Your task to perform on an android device: Clear the cart on ebay.com. Add "razer thresher" to the cart on ebay.com Image 0: 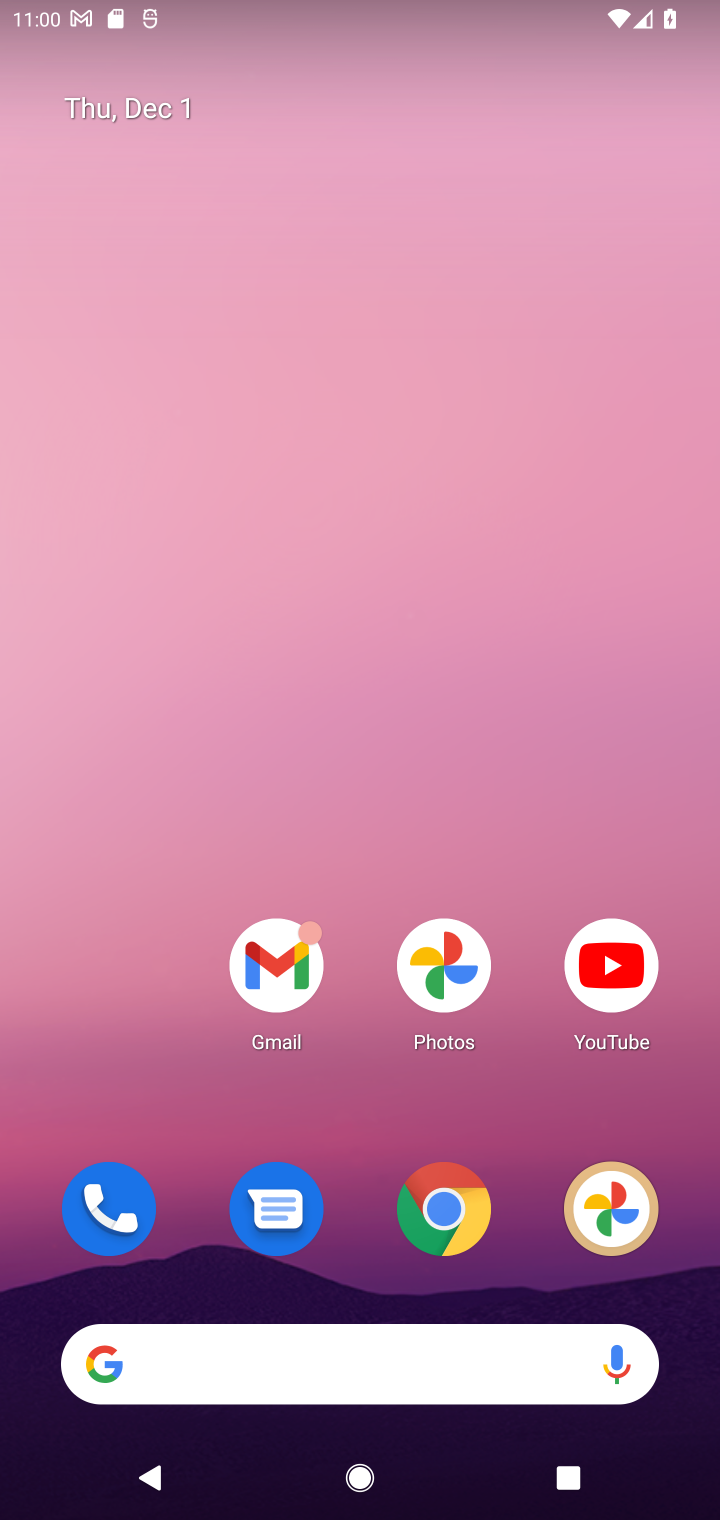
Step 0: click (452, 1204)
Your task to perform on an android device: Clear the cart on ebay.com. Add "razer thresher" to the cart on ebay.com Image 1: 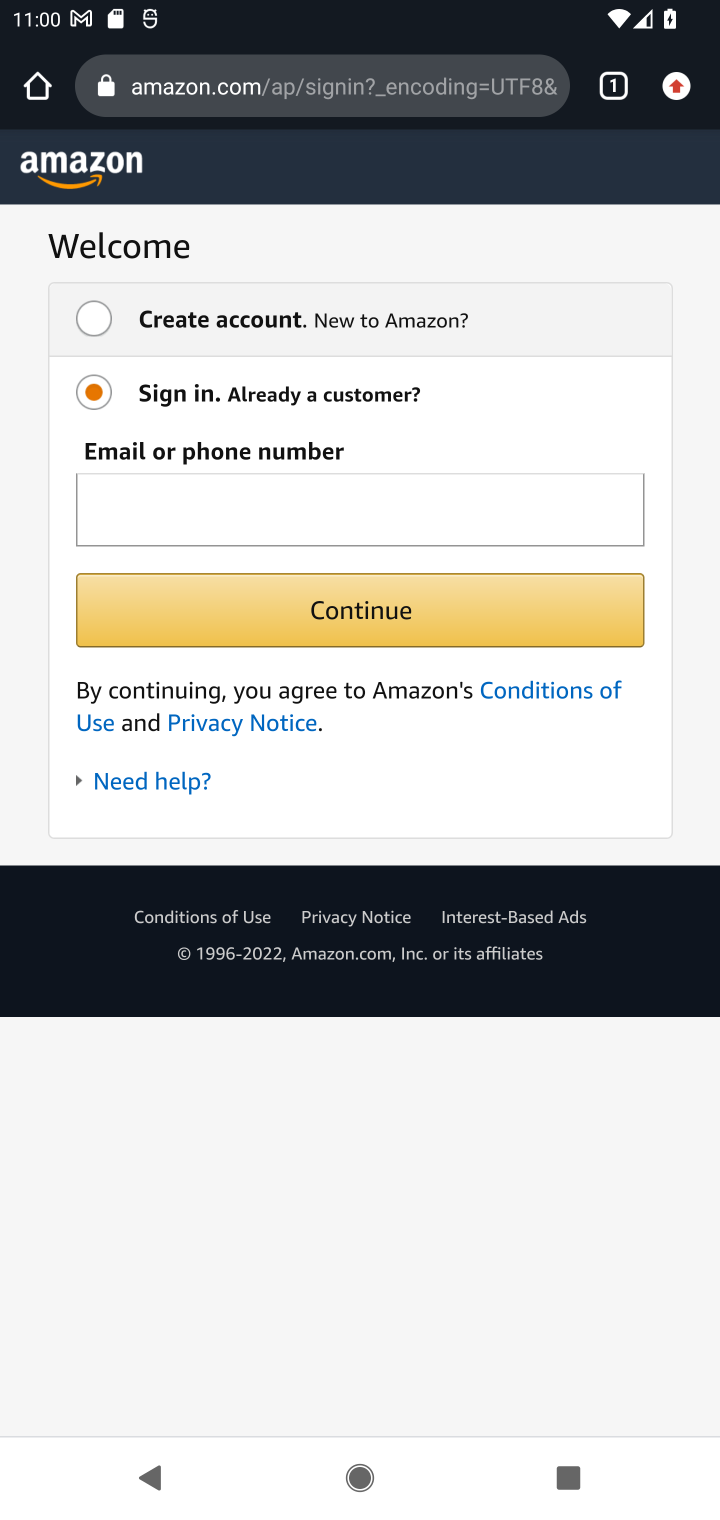
Step 1: click (314, 80)
Your task to perform on an android device: Clear the cart on ebay.com. Add "razer thresher" to the cart on ebay.com Image 2: 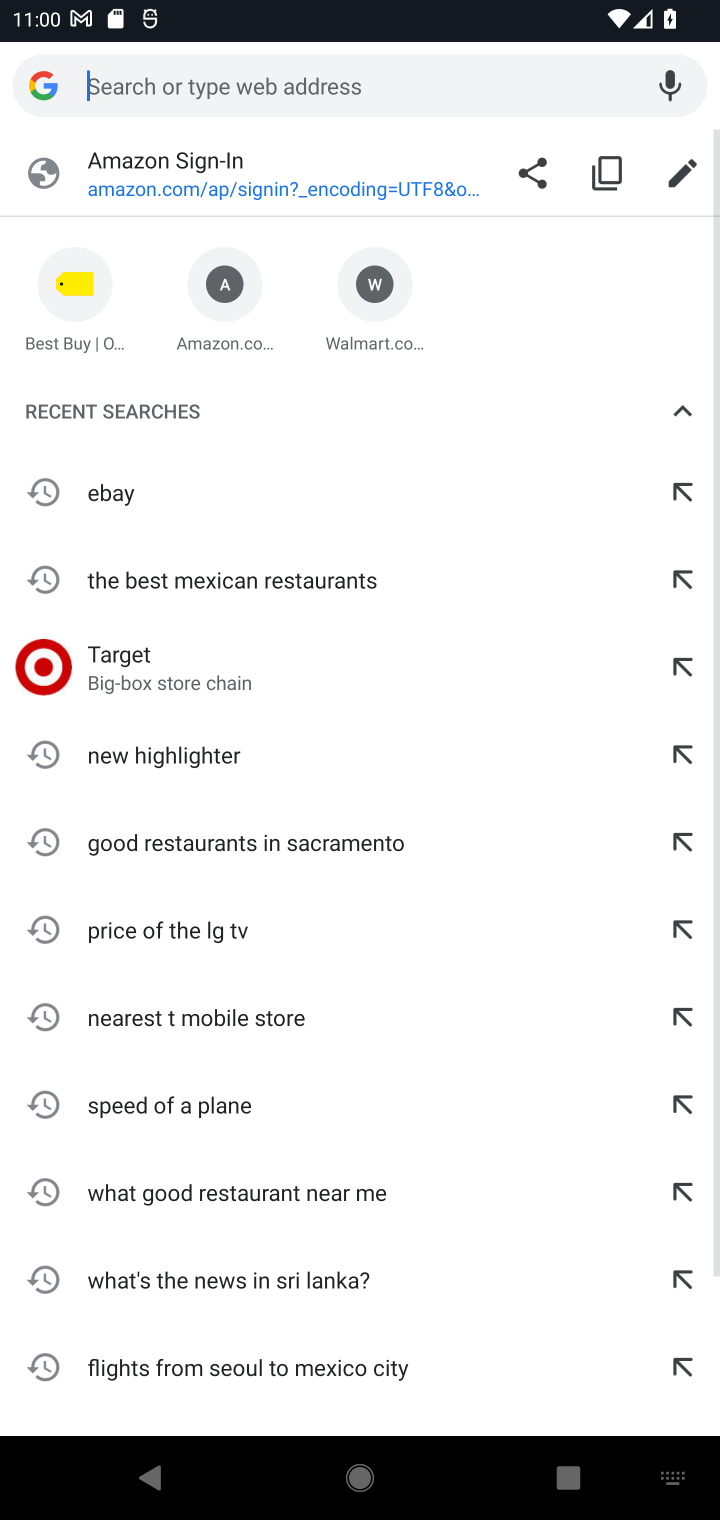
Step 2: click (125, 491)
Your task to perform on an android device: Clear the cart on ebay.com. Add "razer thresher" to the cart on ebay.com Image 3: 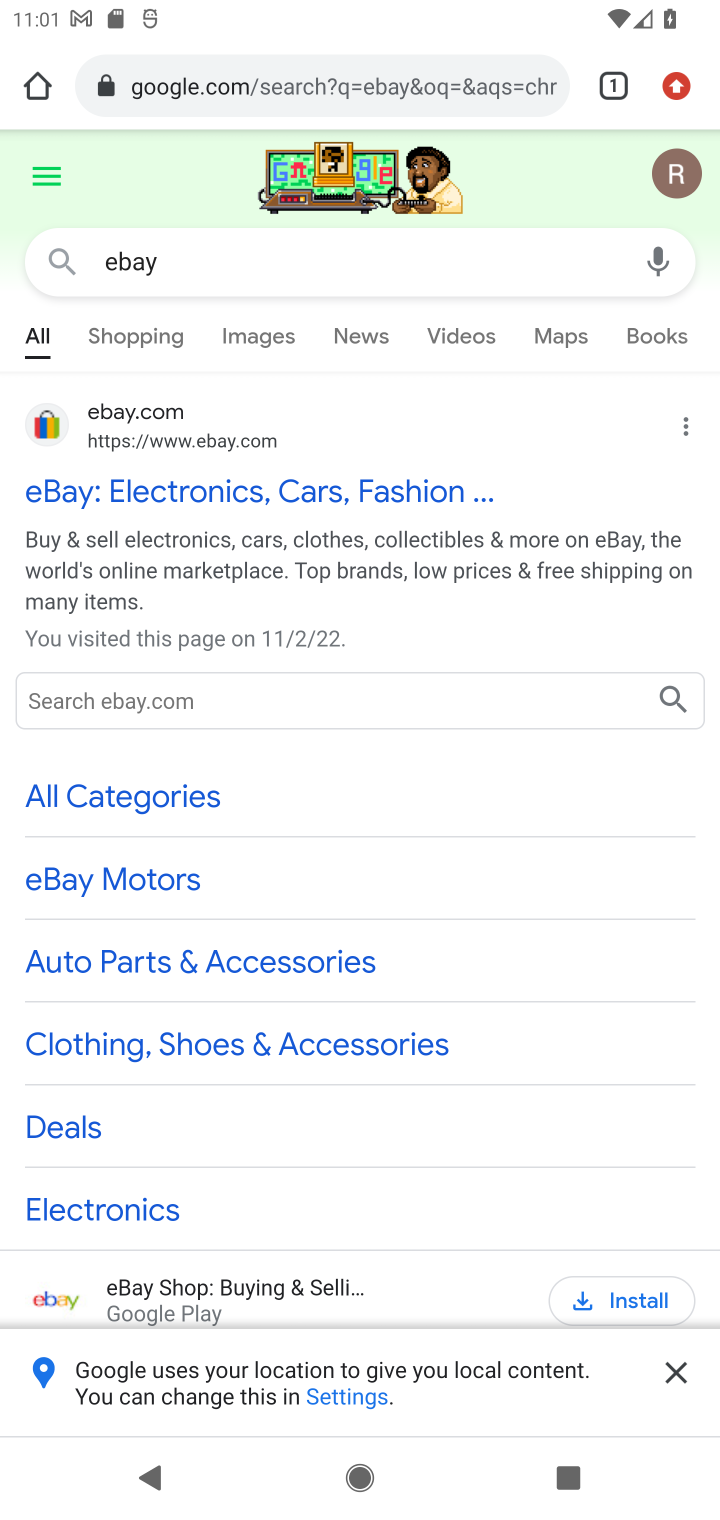
Step 3: click (130, 500)
Your task to perform on an android device: Clear the cart on ebay.com. Add "razer thresher" to the cart on ebay.com Image 4: 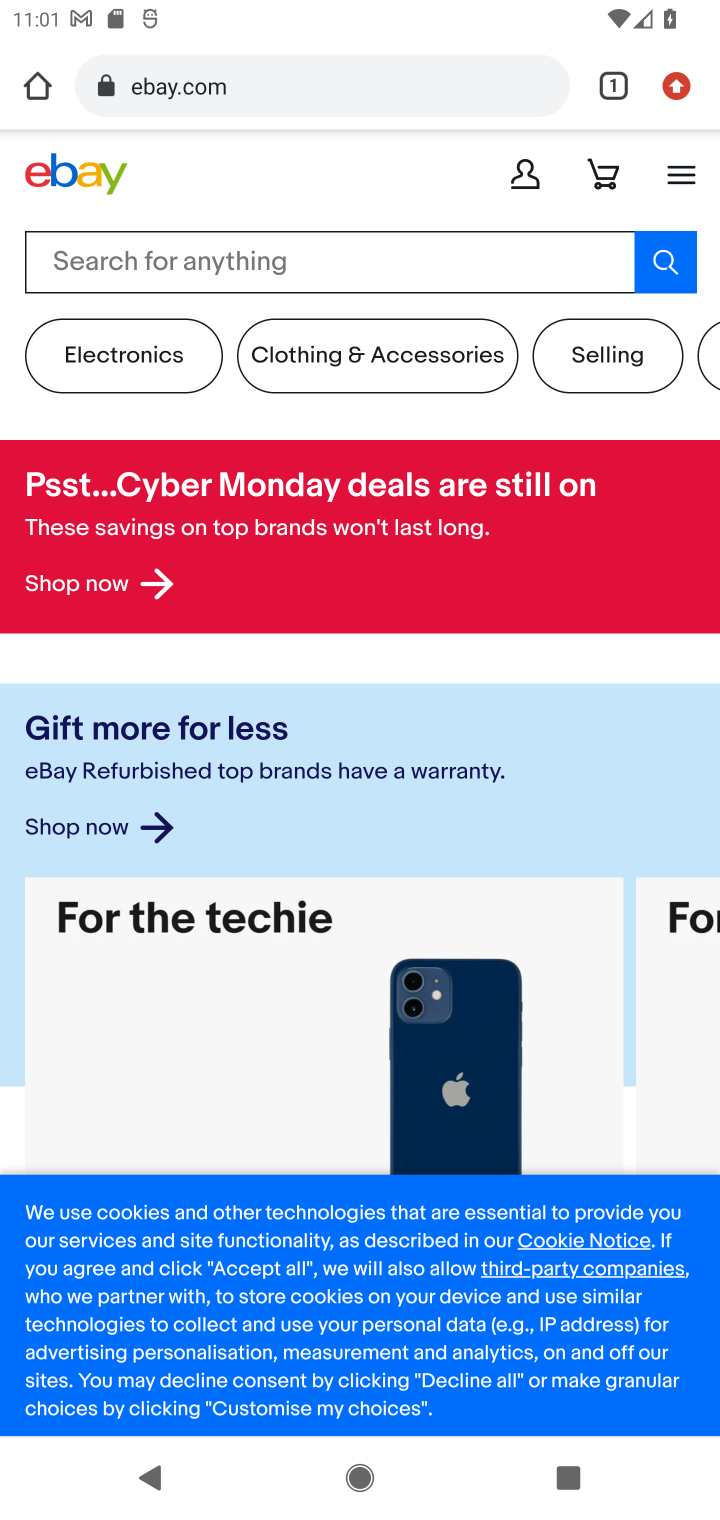
Step 4: click (313, 256)
Your task to perform on an android device: Clear the cart on ebay.com. Add "razer thresher" to the cart on ebay.com Image 5: 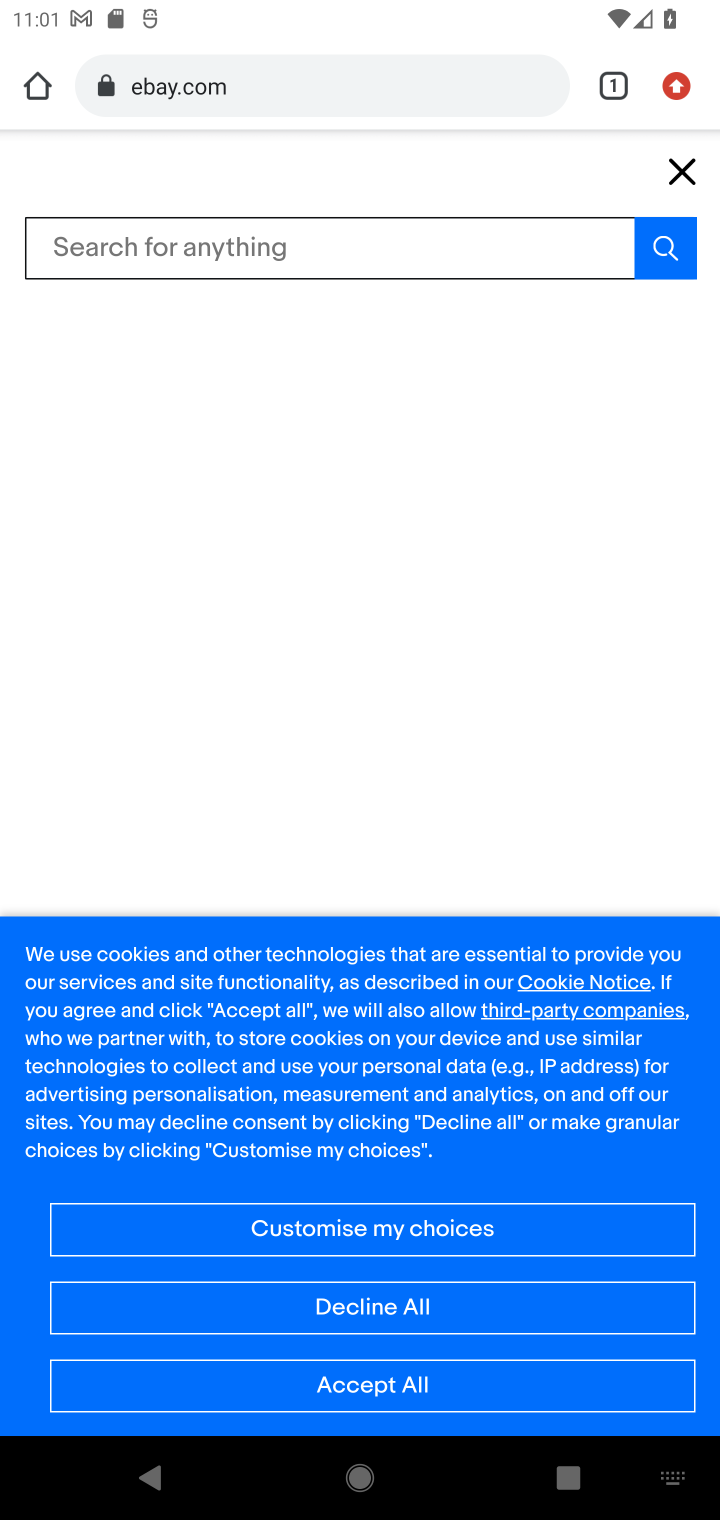
Step 5: click (405, 1379)
Your task to perform on an android device: Clear the cart on ebay.com. Add "razer thresher" to the cart on ebay.com Image 6: 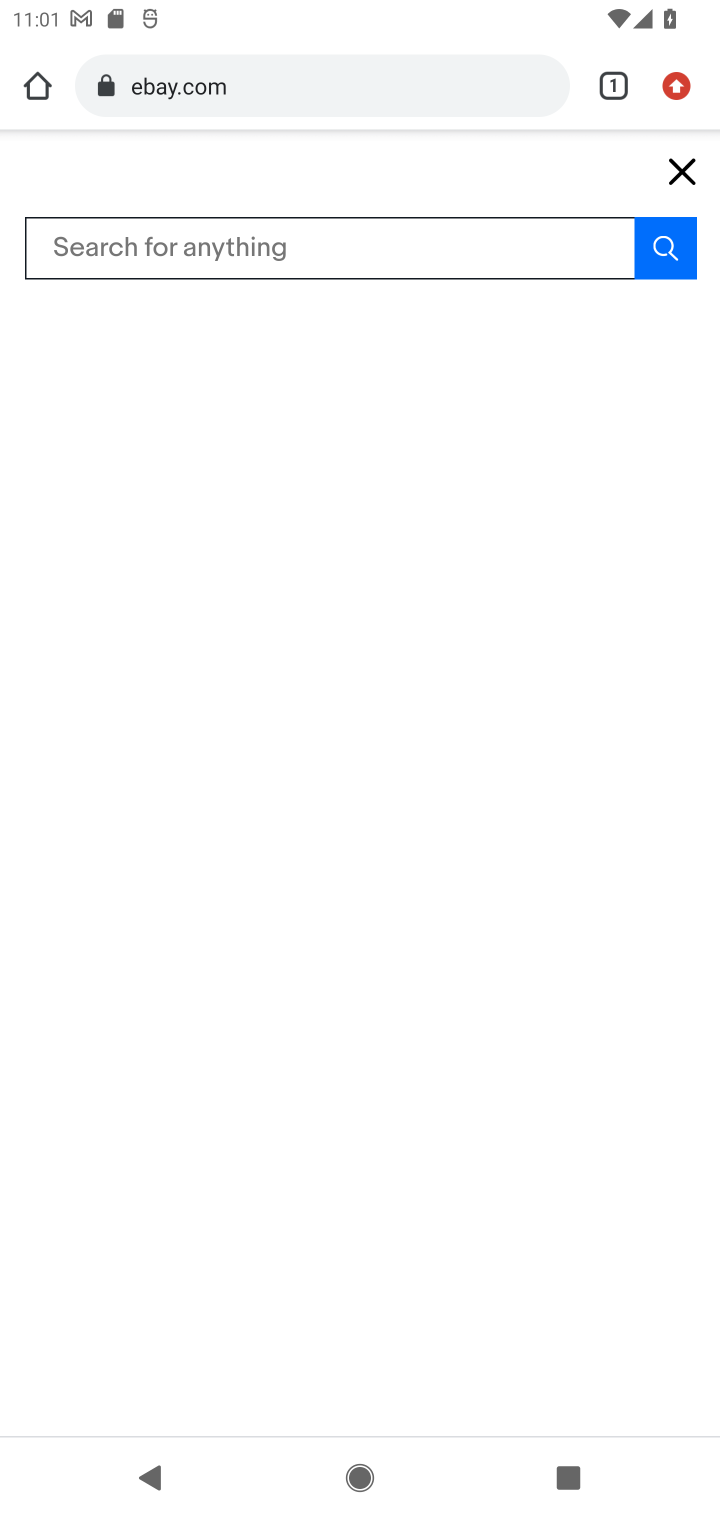
Step 6: click (317, 243)
Your task to perform on an android device: Clear the cart on ebay.com. Add "razer thresher" to the cart on ebay.com Image 7: 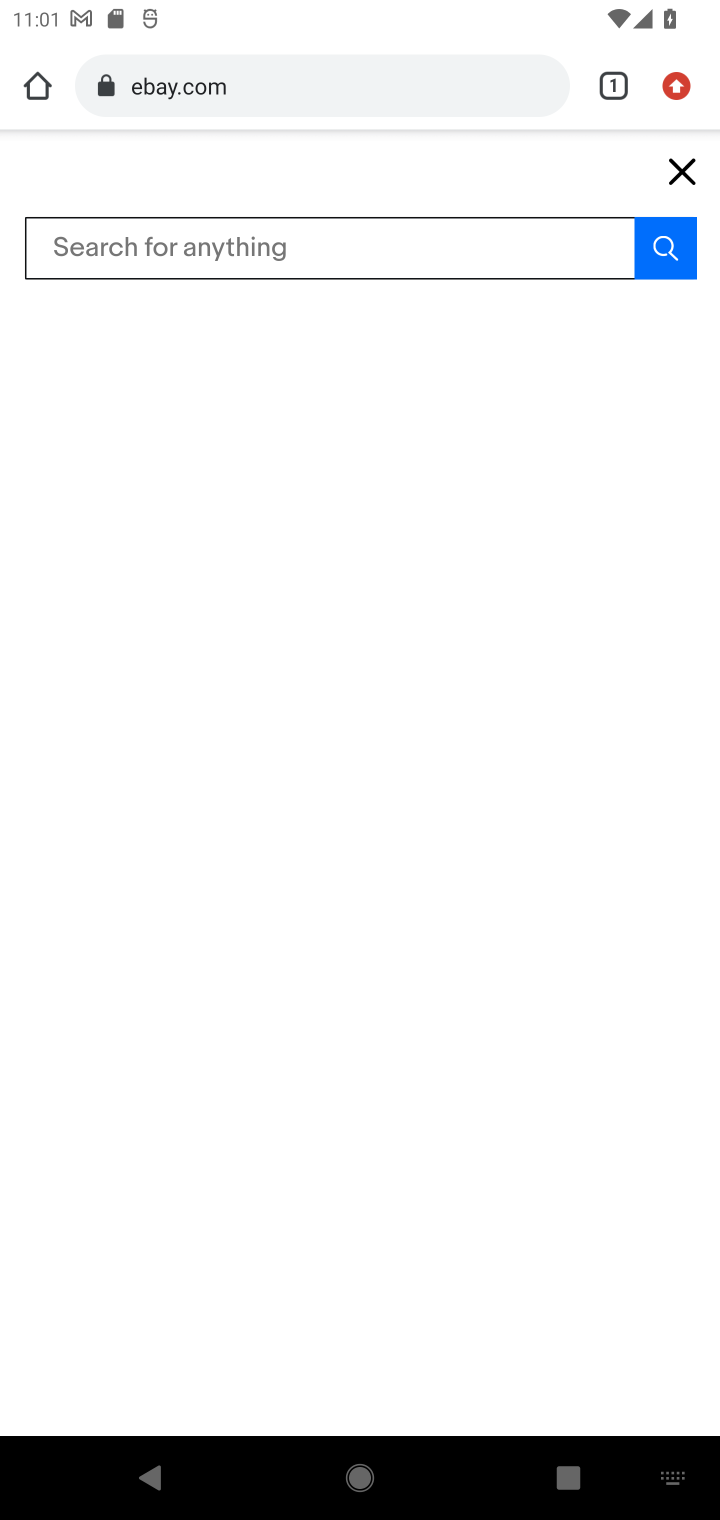
Step 7: click (272, 251)
Your task to perform on an android device: Clear the cart on ebay.com. Add "razer thresher" to the cart on ebay.com Image 8: 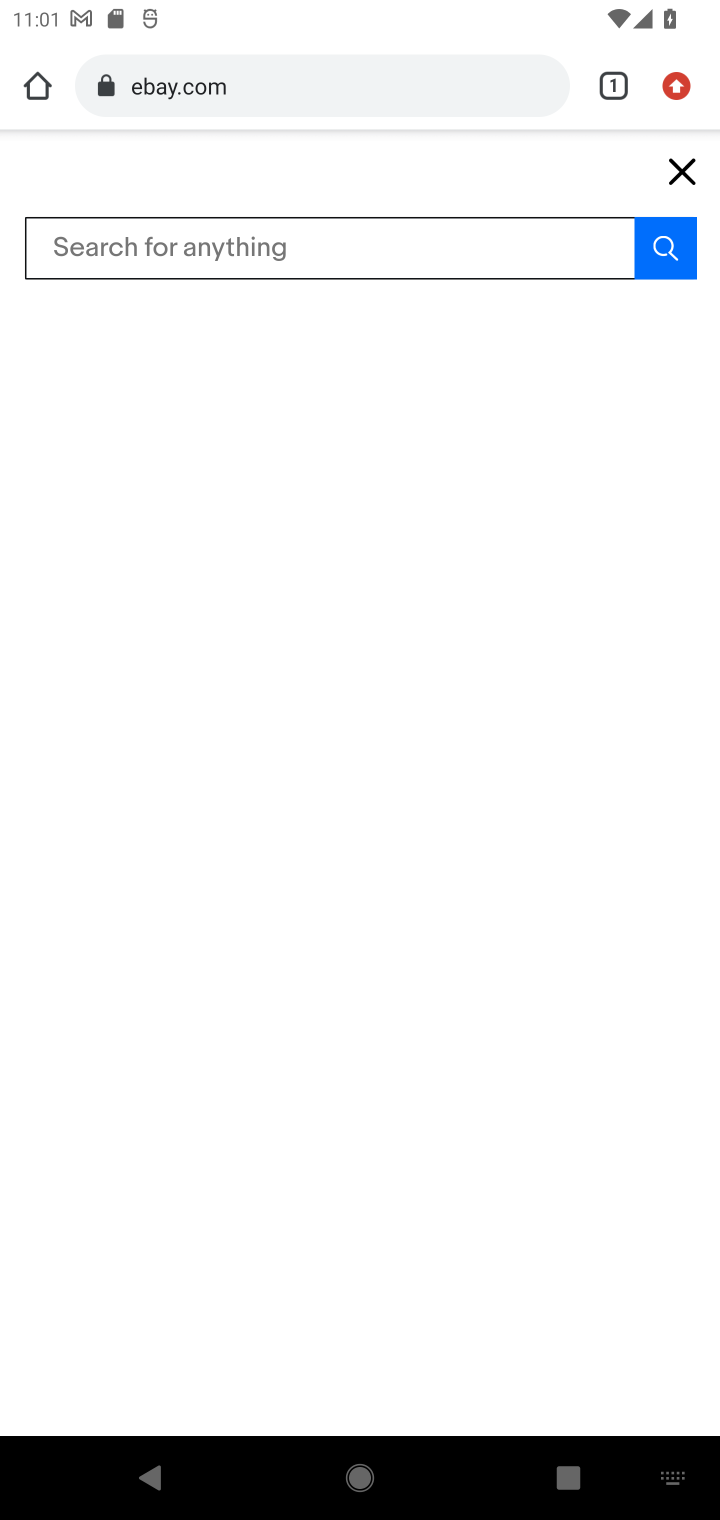
Step 8: type "razer thresher"
Your task to perform on an android device: Clear the cart on ebay.com. Add "razer thresher" to the cart on ebay.com Image 9: 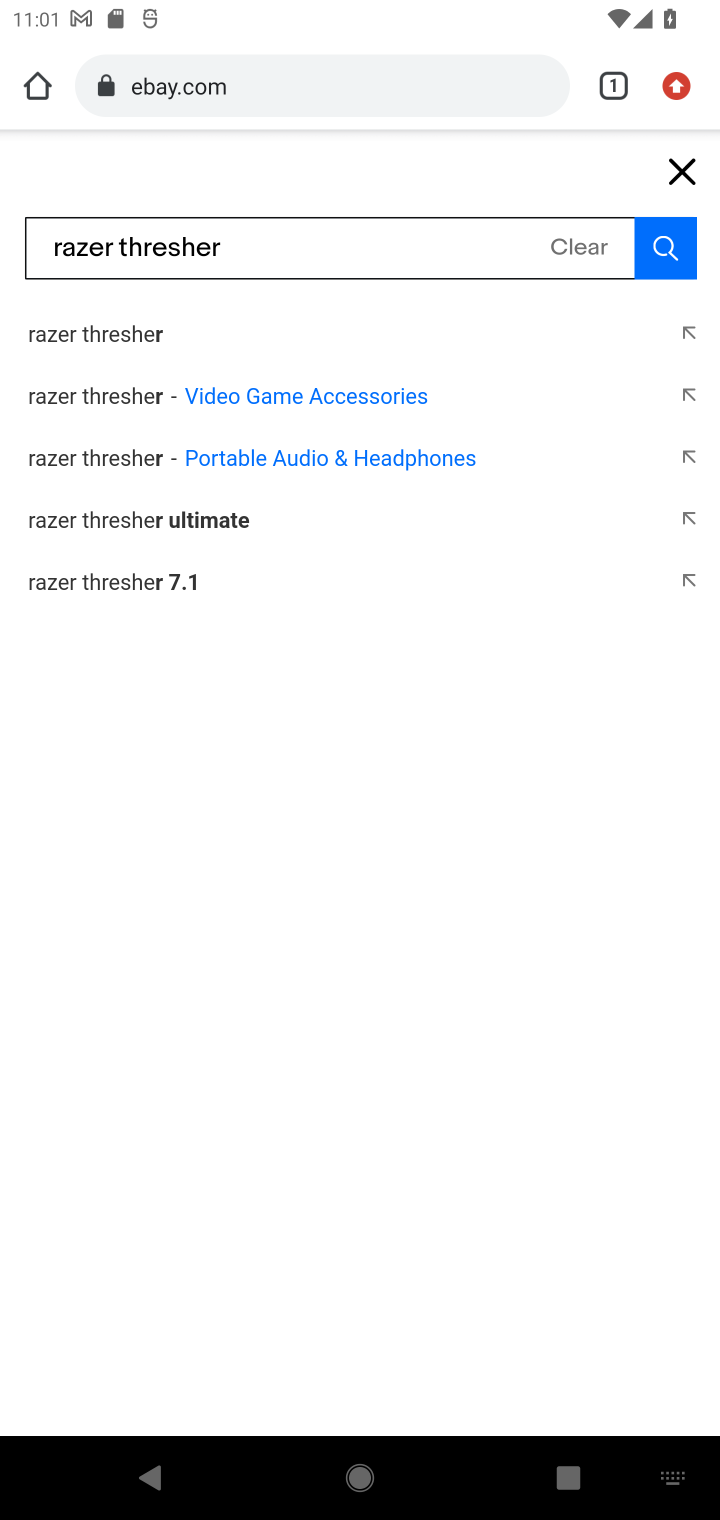
Step 9: click (93, 337)
Your task to perform on an android device: Clear the cart on ebay.com. Add "razer thresher" to the cart on ebay.com Image 10: 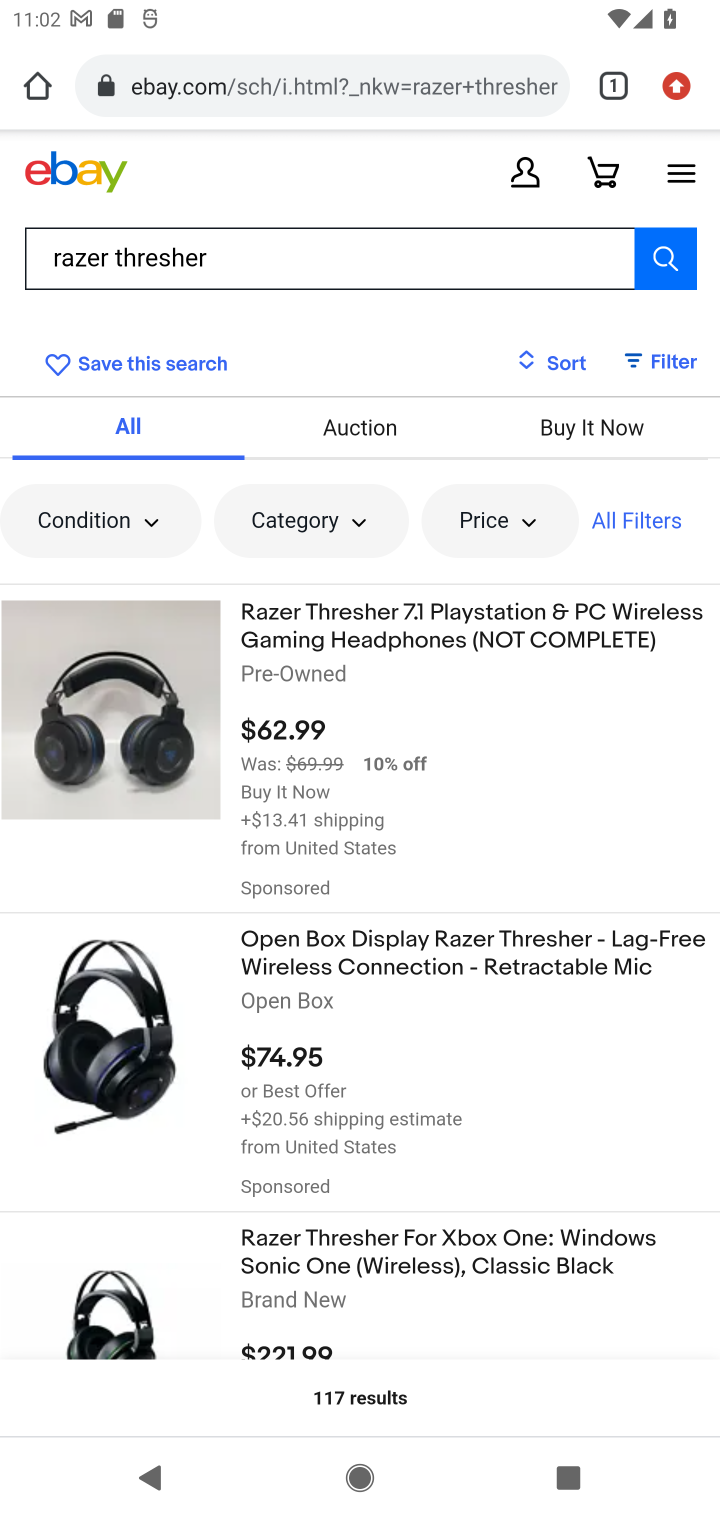
Step 10: click (395, 683)
Your task to perform on an android device: Clear the cart on ebay.com. Add "razer thresher" to the cart on ebay.com Image 11: 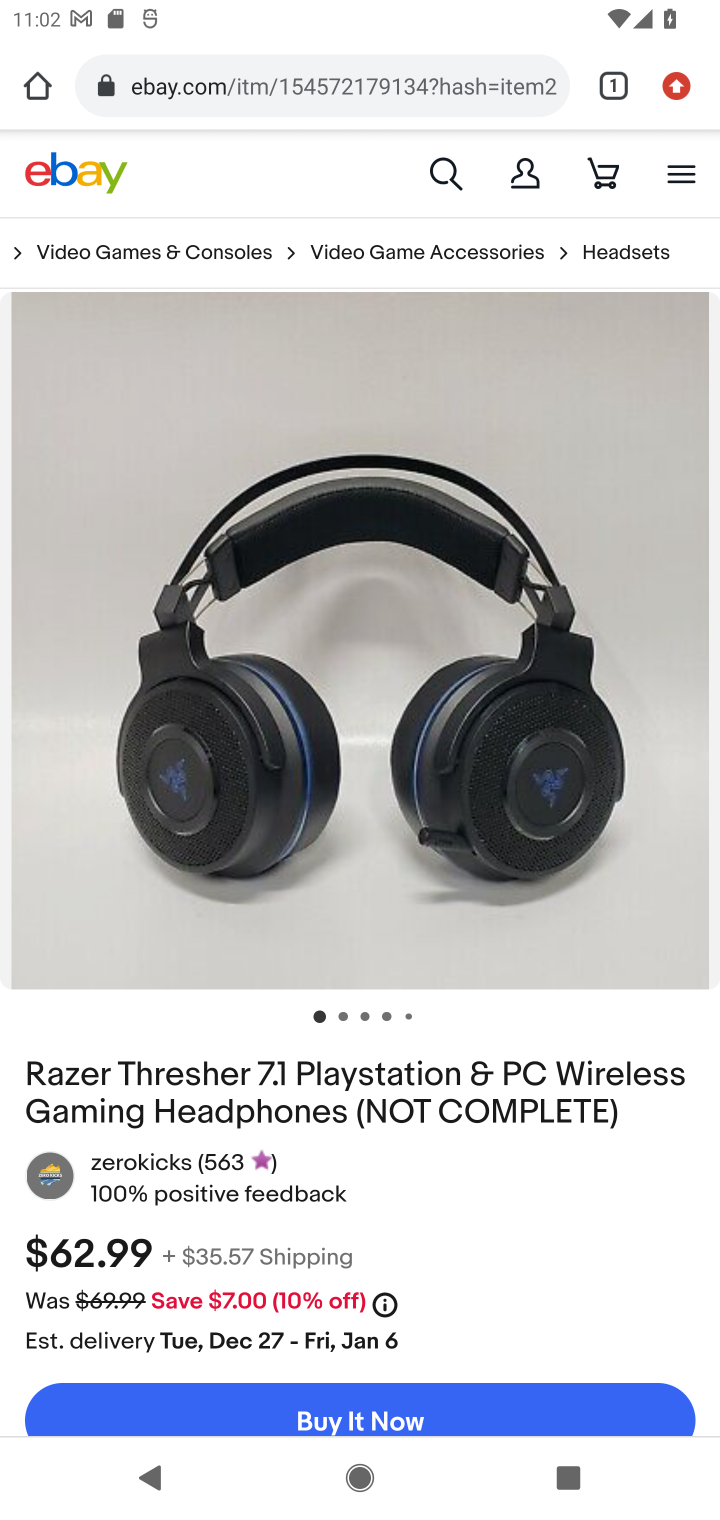
Step 11: drag from (484, 1277) to (436, 607)
Your task to perform on an android device: Clear the cart on ebay.com. Add "razer thresher" to the cart on ebay.com Image 12: 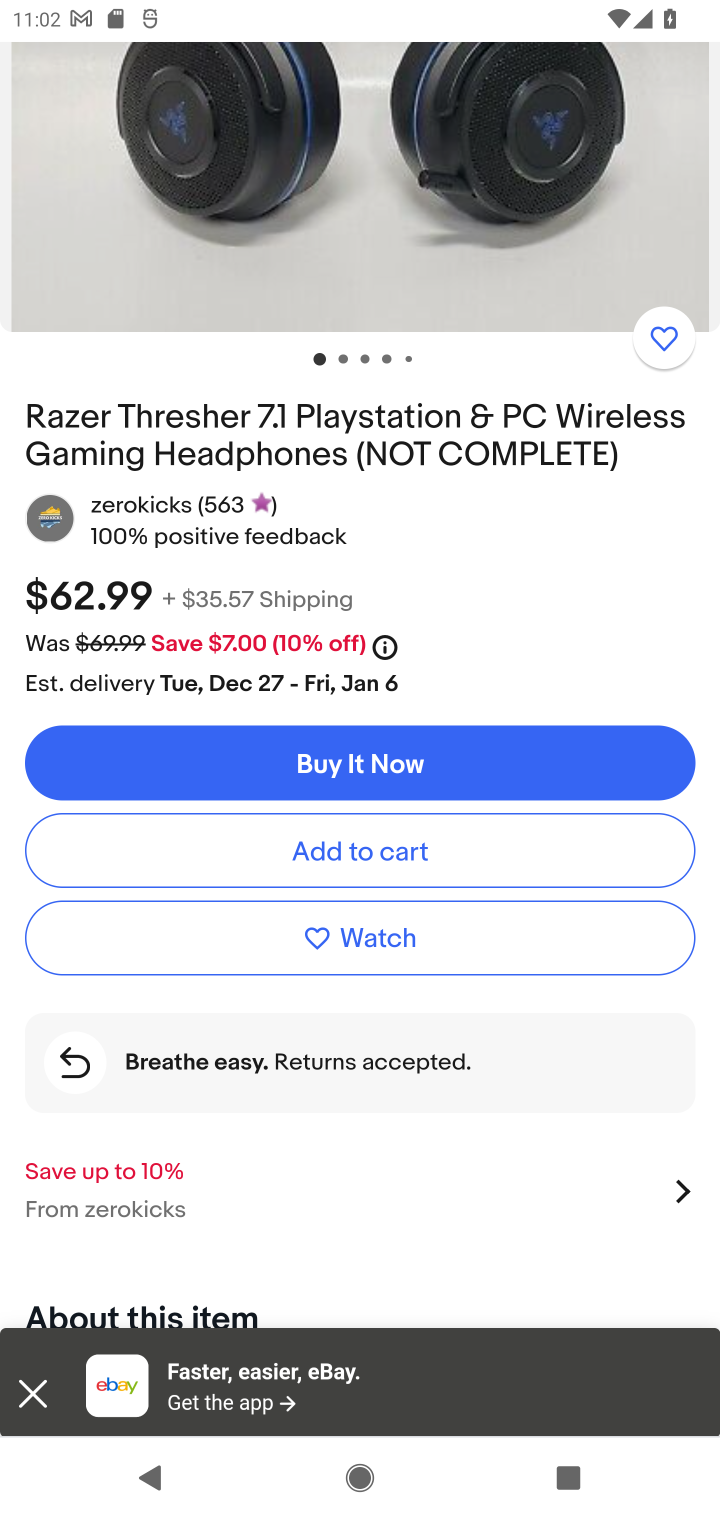
Step 12: click (366, 857)
Your task to perform on an android device: Clear the cart on ebay.com. Add "razer thresher" to the cart on ebay.com Image 13: 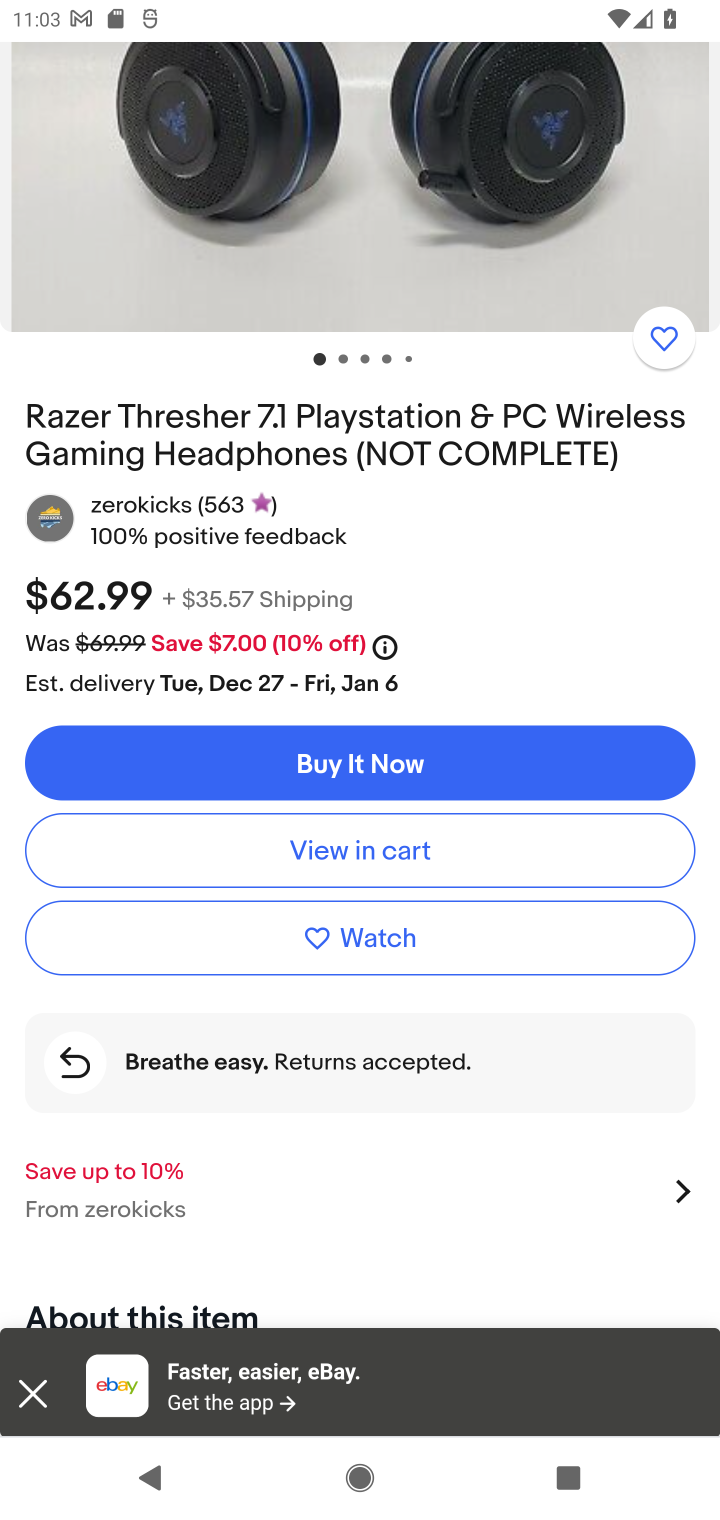
Step 13: task complete